Your task to perform on an android device: choose inbox layout in the gmail app Image 0: 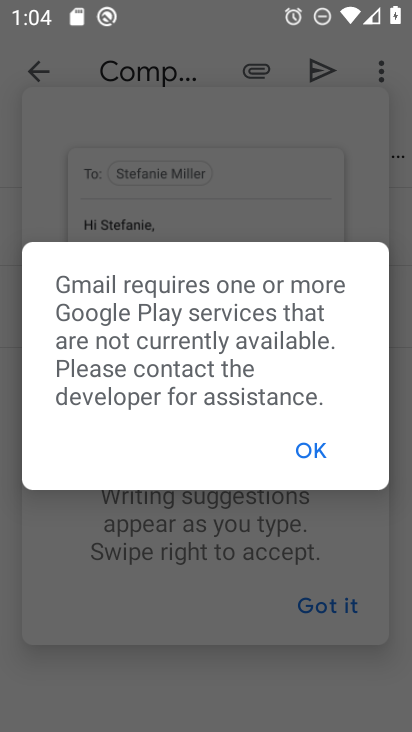
Step 0: press home button
Your task to perform on an android device: choose inbox layout in the gmail app Image 1: 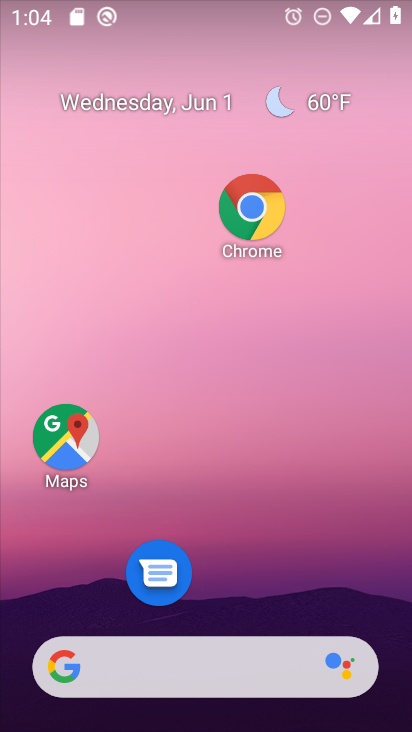
Step 1: drag from (198, 600) to (206, 109)
Your task to perform on an android device: choose inbox layout in the gmail app Image 2: 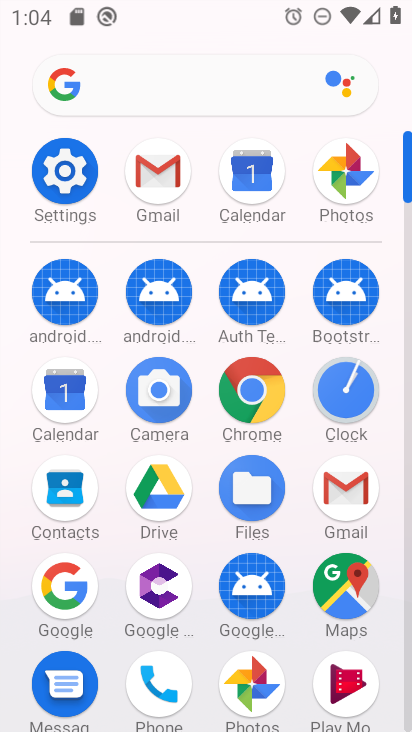
Step 2: click (350, 505)
Your task to perform on an android device: choose inbox layout in the gmail app Image 3: 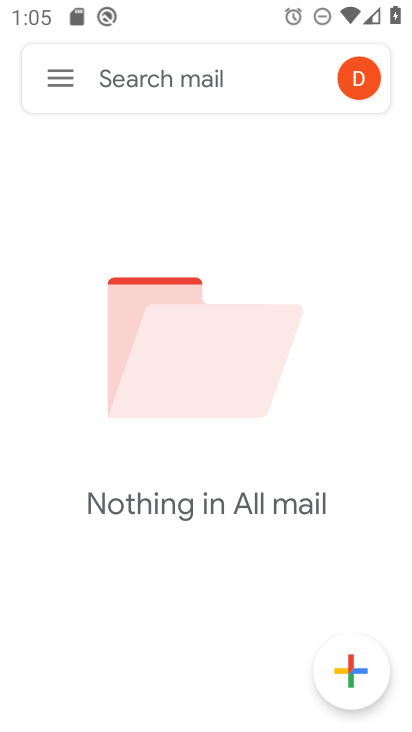
Step 3: click (72, 80)
Your task to perform on an android device: choose inbox layout in the gmail app Image 4: 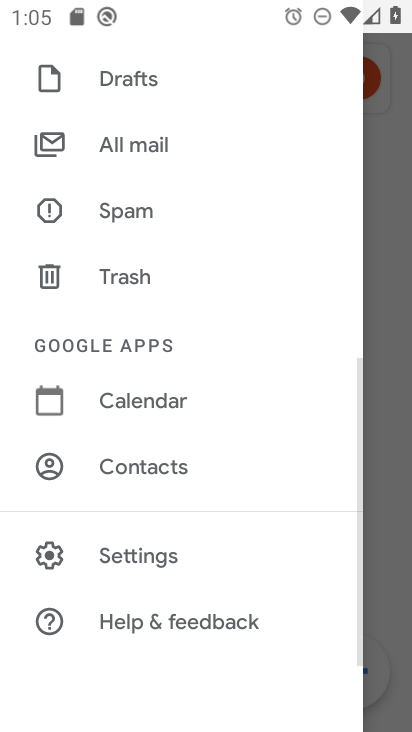
Step 4: click (149, 546)
Your task to perform on an android device: choose inbox layout in the gmail app Image 5: 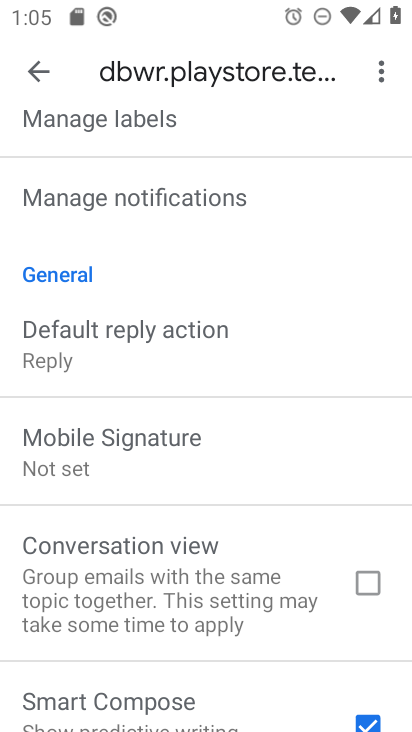
Step 5: drag from (153, 248) to (143, 580)
Your task to perform on an android device: choose inbox layout in the gmail app Image 6: 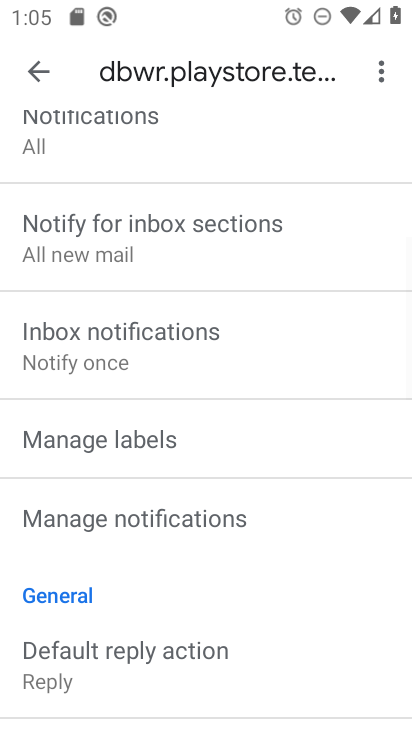
Step 6: drag from (141, 241) to (139, 548)
Your task to perform on an android device: choose inbox layout in the gmail app Image 7: 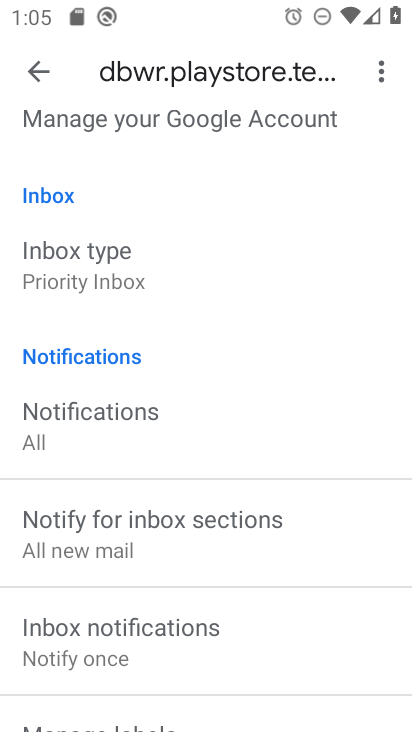
Step 7: click (131, 251)
Your task to perform on an android device: choose inbox layout in the gmail app Image 8: 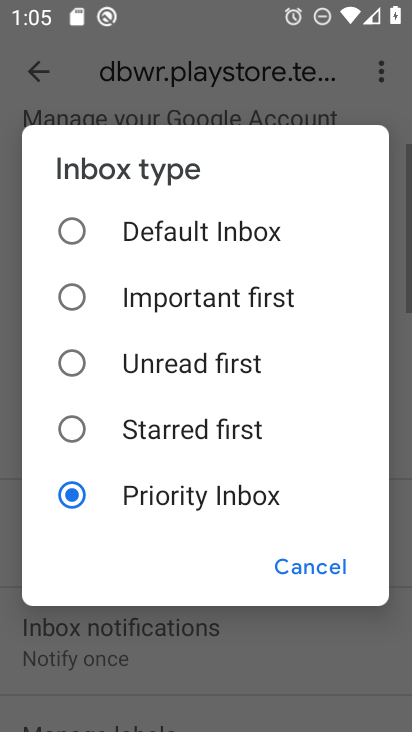
Step 8: click (146, 237)
Your task to perform on an android device: choose inbox layout in the gmail app Image 9: 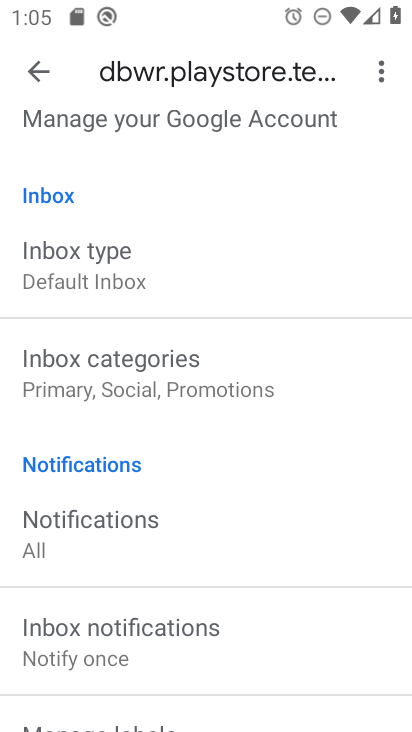
Step 9: task complete